Your task to perform on an android device: What's the news in Laos? Image 0: 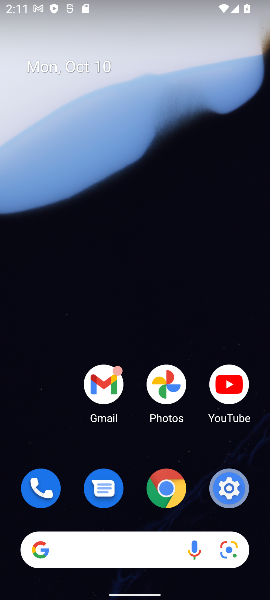
Step 0: click (78, 551)
Your task to perform on an android device: What's the news in Laos? Image 1: 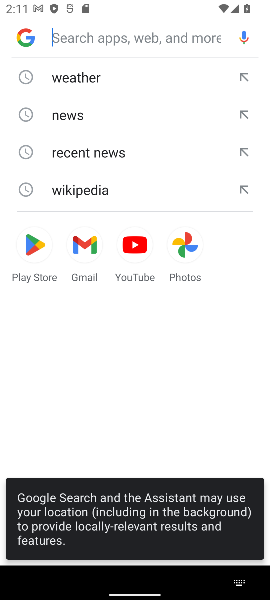
Step 1: click (144, 38)
Your task to perform on an android device: What's the news in Laos? Image 2: 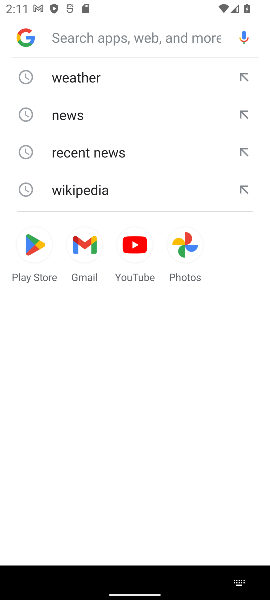
Step 2: type "What's the news in Laos"
Your task to perform on an android device: What's the news in Laos? Image 3: 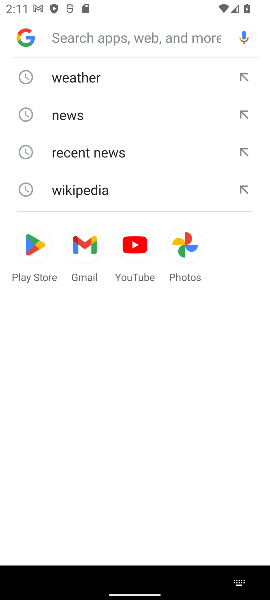
Step 3: click (97, 37)
Your task to perform on an android device: What's the news in Laos? Image 4: 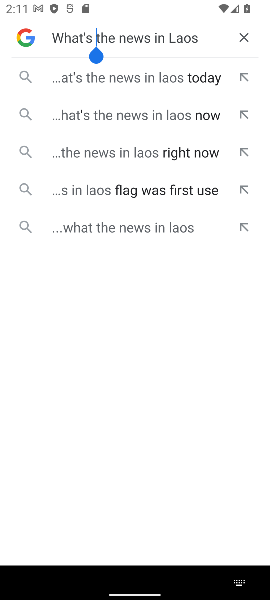
Step 4: click (176, 80)
Your task to perform on an android device: What's the news in Laos? Image 5: 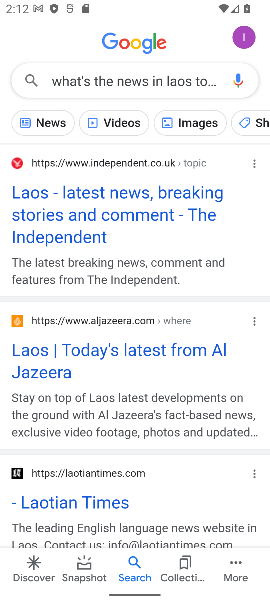
Step 5: task complete